Your task to perform on an android device: turn off improve location accuracy Image 0: 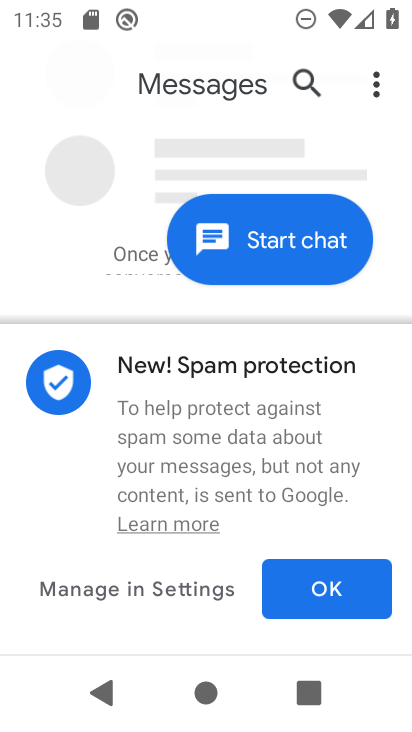
Step 0: press home button
Your task to perform on an android device: turn off improve location accuracy Image 1: 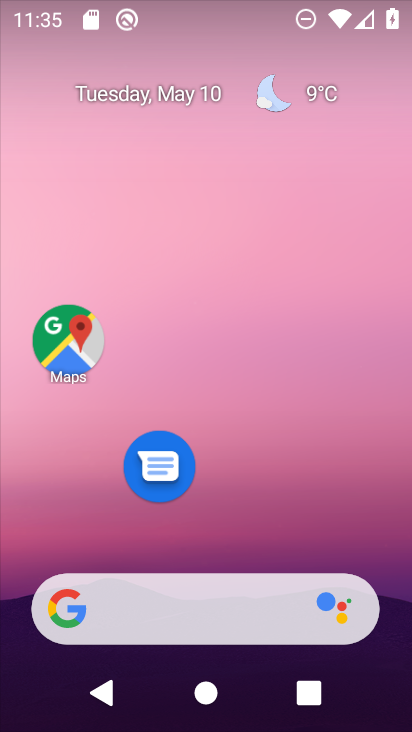
Step 1: drag from (248, 543) to (234, 57)
Your task to perform on an android device: turn off improve location accuracy Image 2: 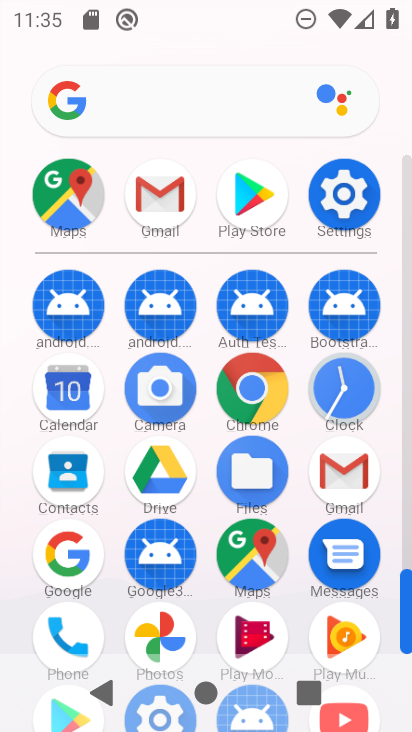
Step 2: click (358, 203)
Your task to perform on an android device: turn off improve location accuracy Image 3: 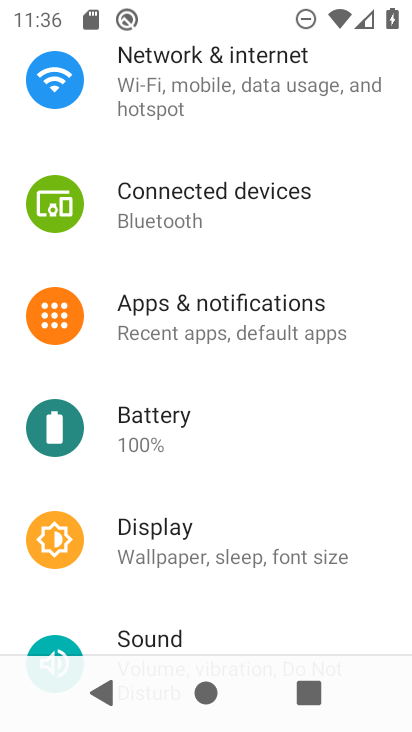
Step 3: drag from (222, 506) to (204, 409)
Your task to perform on an android device: turn off improve location accuracy Image 4: 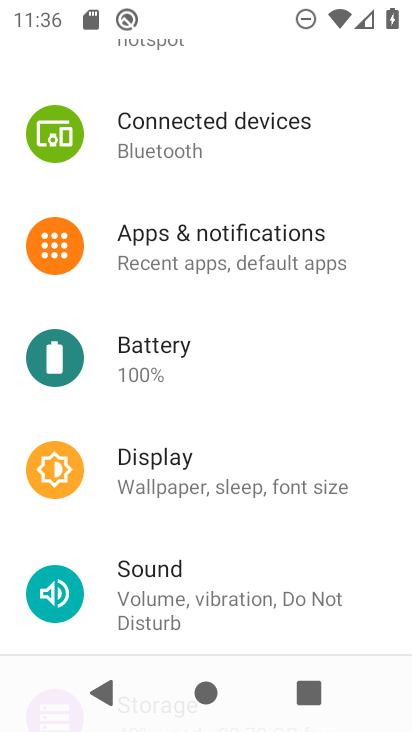
Step 4: drag from (261, 554) to (237, 438)
Your task to perform on an android device: turn off improve location accuracy Image 5: 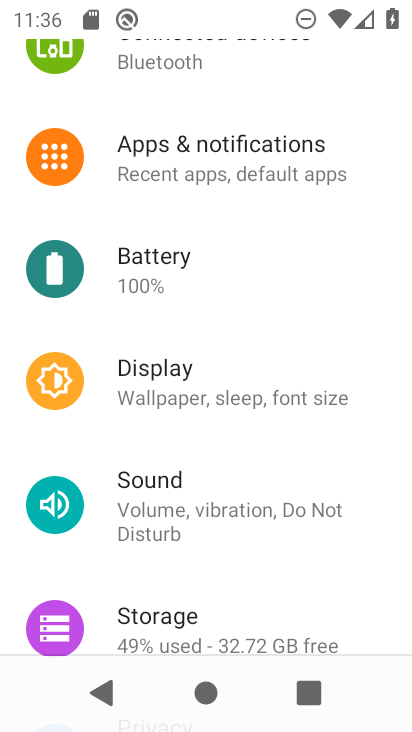
Step 5: drag from (303, 549) to (279, 456)
Your task to perform on an android device: turn off improve location accuracy Image 6: 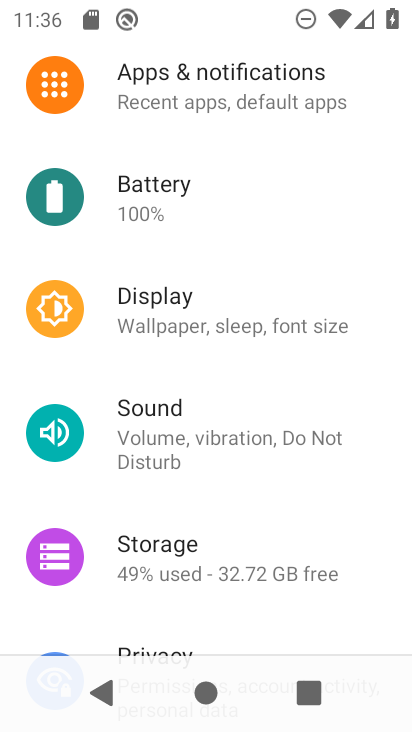
Step 6: drag from (300, 550) to (280, 418)
Your task to perform on an android device: turn off improve location accuracy Image 7: 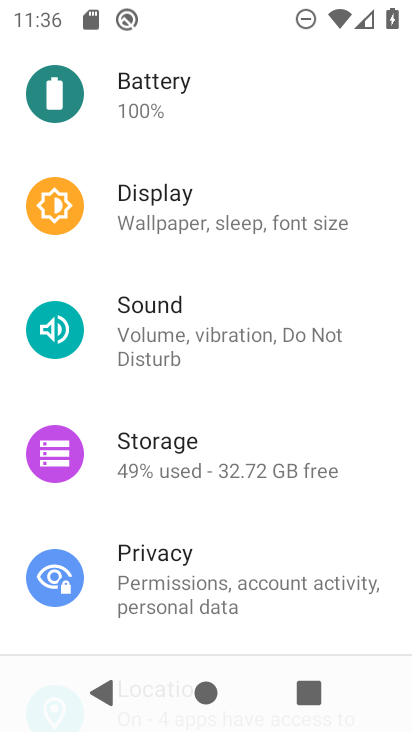
Step 7: drag from (314, 558) to (284, 440)
Your task to perform on an android device: turn off improve location accuracy Image 8: 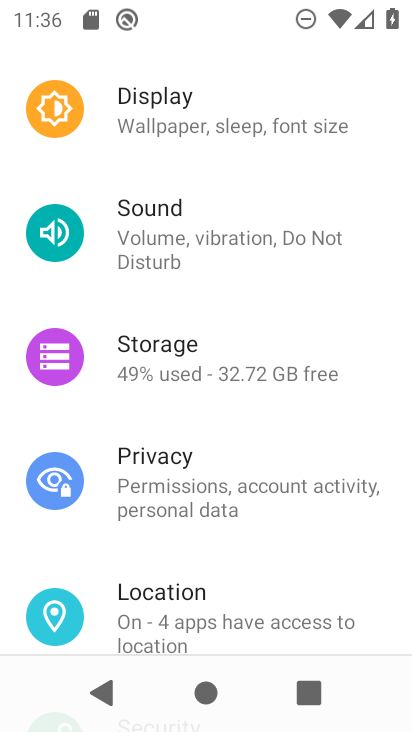
Step 8: click (237, 604)
Your task to perform on an android device: turn off improve location accuracy Image 9: 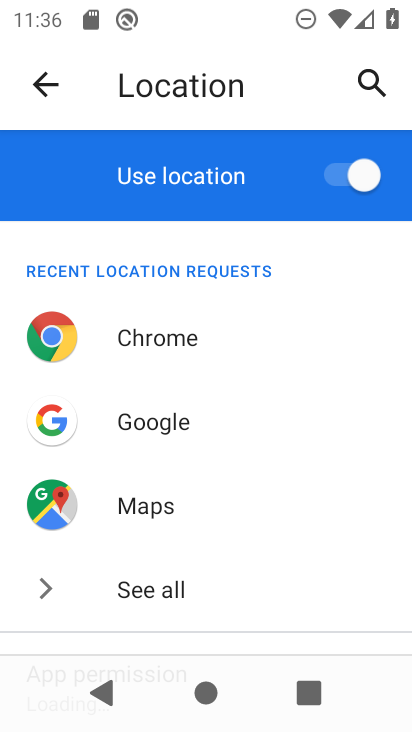
Step 9: drag from (242, 574) to (249, 301)
Your task to perform on an android device: turn off improve location accuracy Image 10: 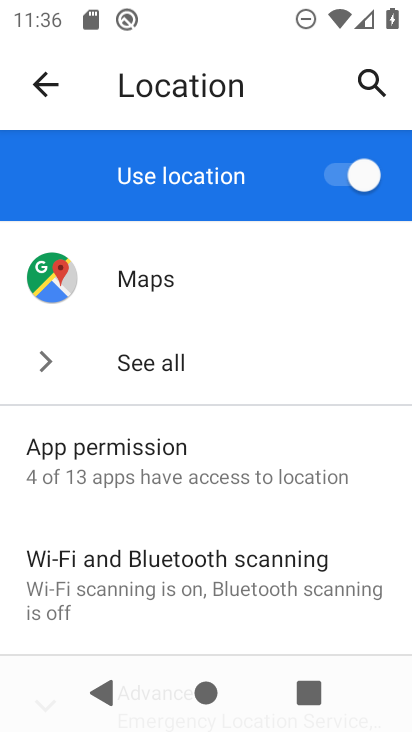
Step 10: drag from (222, 575) to (175, 344)
Your task to perform on an android device: turn off improve location accuracy Image 11: 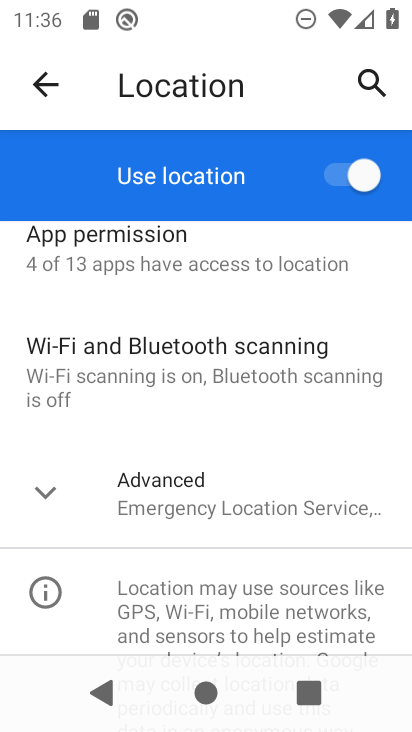
Step 11: click (228, 492)
Your task to perform on an android device: turn off improve location accuracy Image 12: 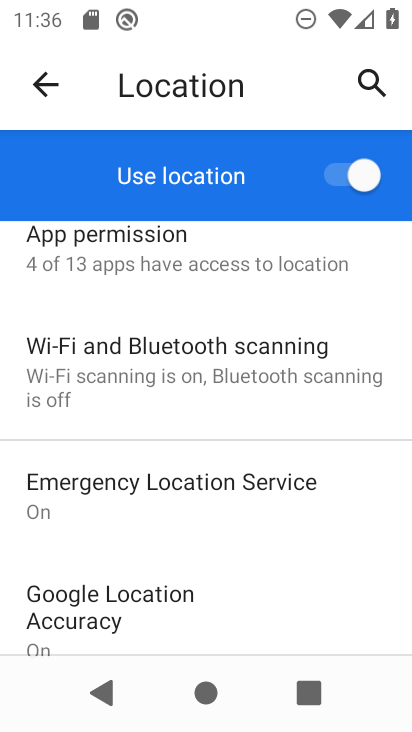
Step 12: drag from (219, 598) to (167, 416)
Your task to perform on an android device: turn off improve location accuracy Image 13: 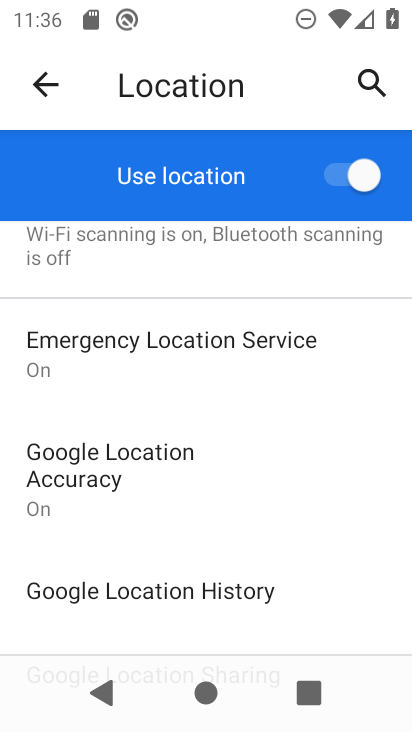
Step 13: click (158, 464)
Your task to perform on an android device: turn off improve location accuracy Image 14: 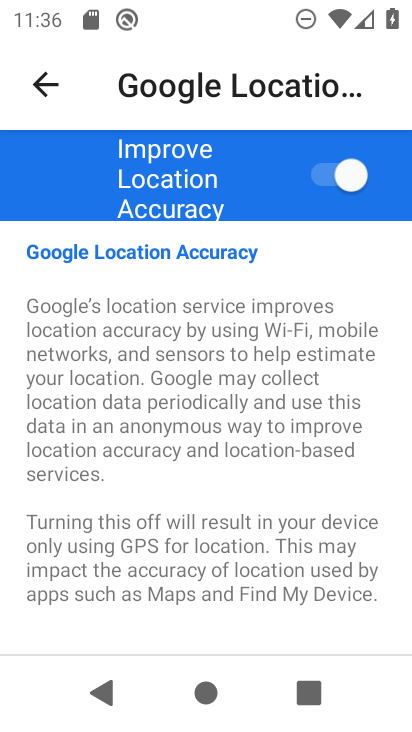
Step 14: click (337, 161)
Your task to perform on an android device: turn off improve location accuracy Image 15: 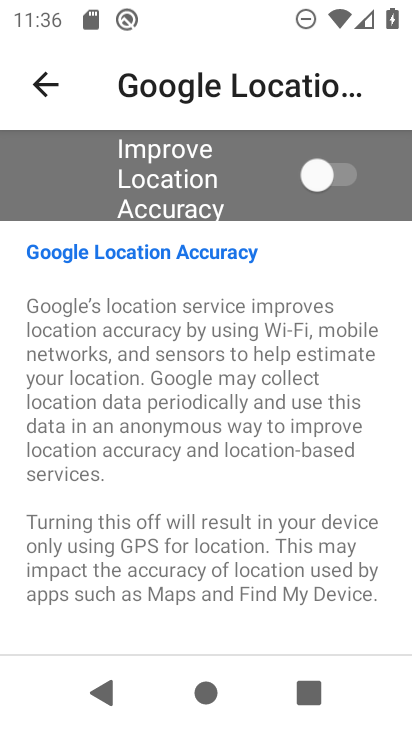
Step 15: task complete